Your task to perform on an android device: toggle location history Image 0: 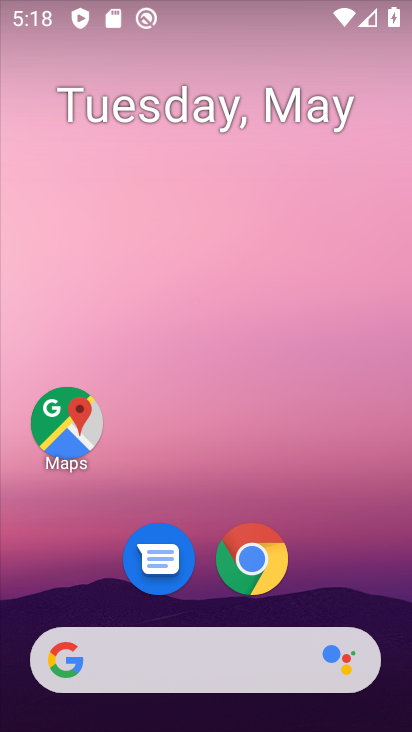
Step 0: drag from (202, 530) to (399, 18)
Your task to perform on an android device: toggle location history Image 1: 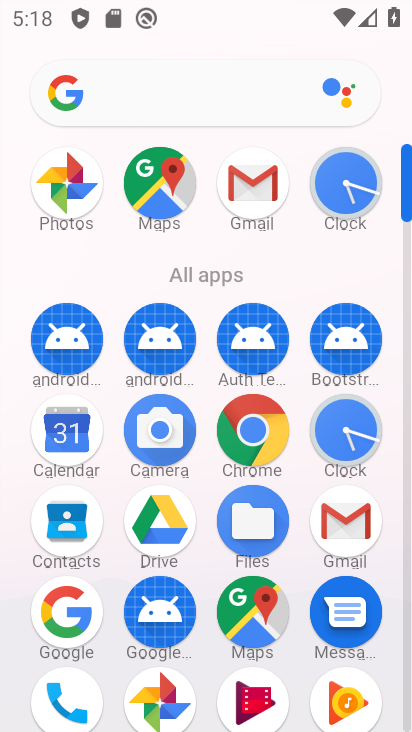
Step 1: drag from (210, 579) to (205, 276)
Your task to perform on an android device: toggle location history Image 2: 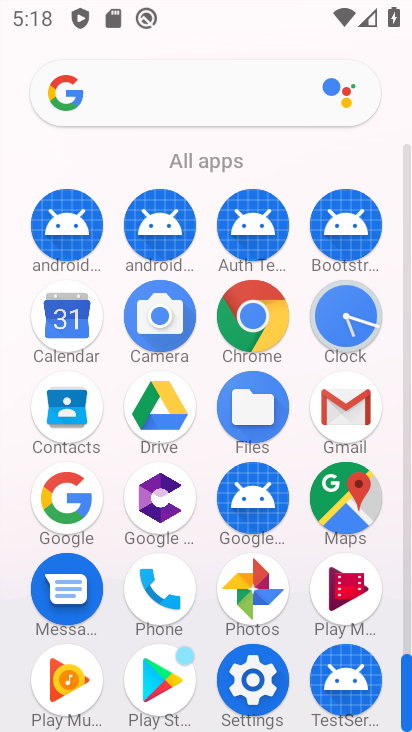
Step 2: click (245, 690)
Your task to perform on an android device: toggle location history Image 3: 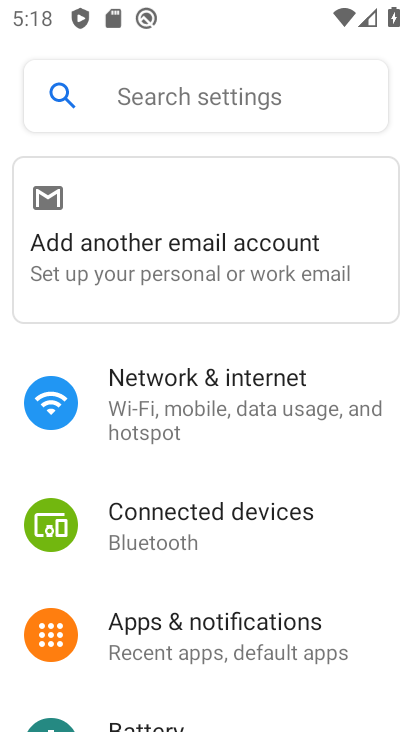
Step 3: drag from (172, 558) to (185, 321)
Your task to perform on an android device: toggle location history Image 4: 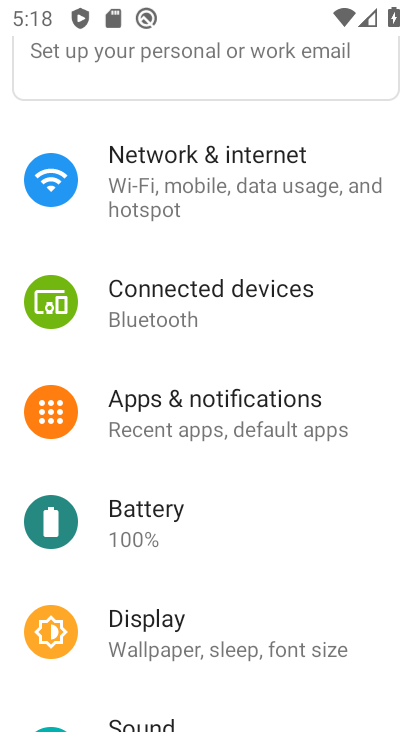
Step 4: drag from (136, 575) to (177, 301)
Your task to perform on an android device: toggle location history Image 5: 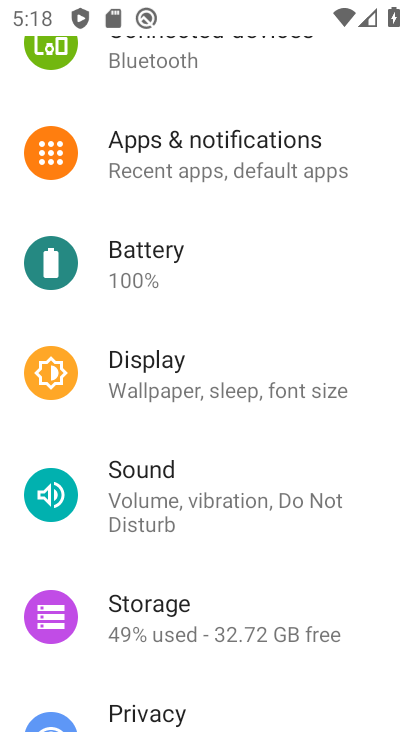
Step 5: drag from (170, 532) to (177, 315)
Your task to perform on an android device: toggle location history Image 6: 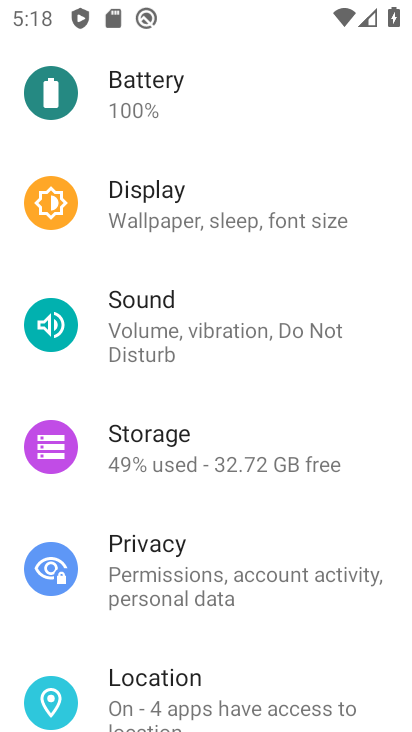
Step 6: drag from (198, 632) to (223, 379)
Your task to perform on an android device: toggle location history Image 7: 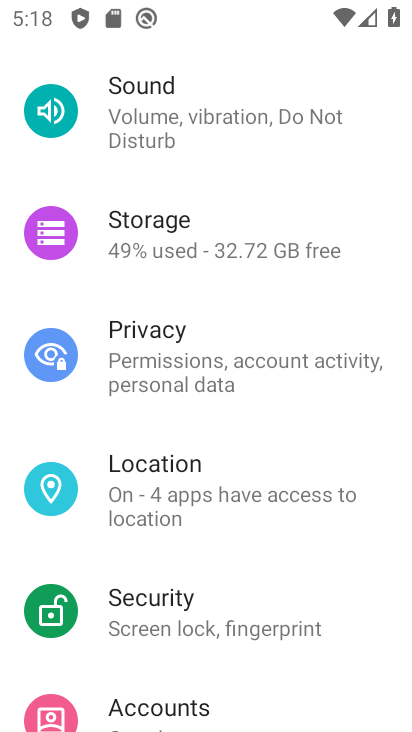
Step 7: drag from (176, 564) to (214, 278)
Your task to perform on an android device: toggle location history Image 8: 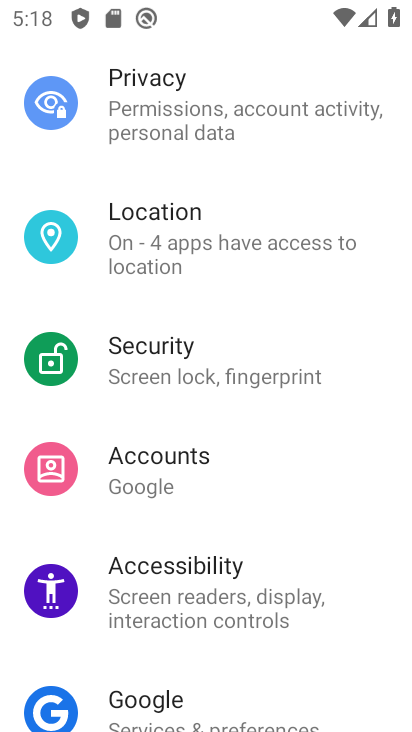
Step 8: click (177, 248)
Your task to perform on an android device: toggle location history Image 9: 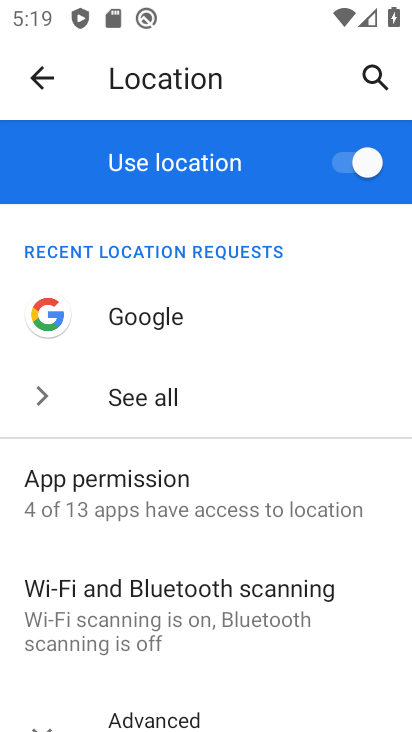
Step 9: drag from (136, 633) to (132, 408)
Your task to perform on an android device: toggle location history Image 10: 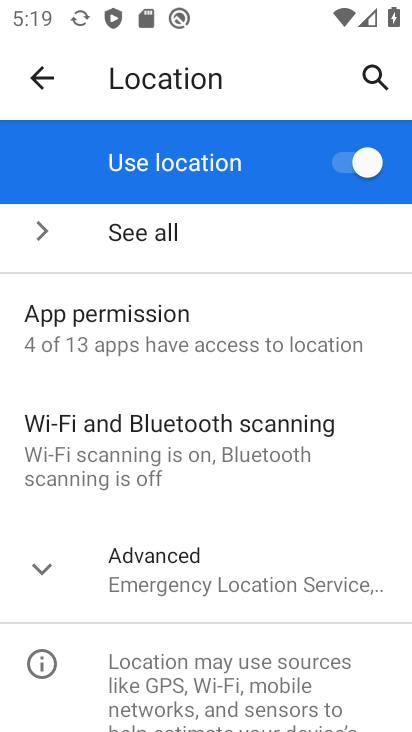
Step 10: click (140, 580)
Your task to perform on an android device: toggle location history Image 11: 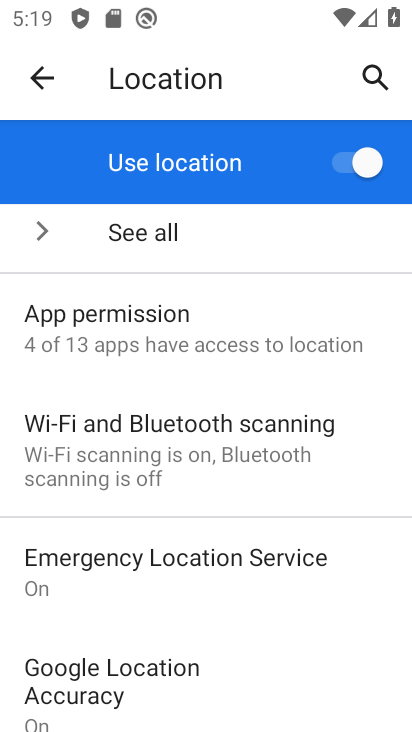
Step 11: drag from (181, 674) to (199, 404)
Your task to perform on an android device: toggle location history Image 12: 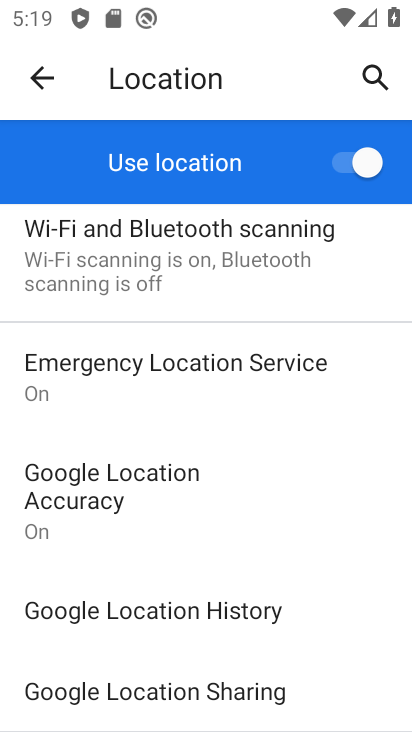
Step 12: drag from (183, 631) to (203, 403)
Your task to perform on an android device: toggle location history Image 13: 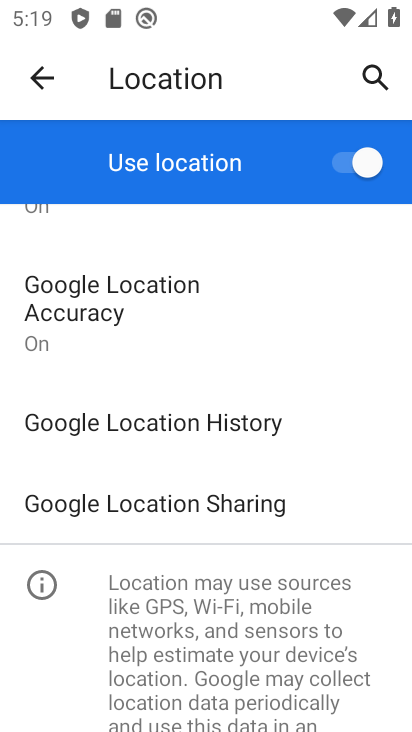
Step 13: click (147, 428)
Your task to perform on an android device: toggle location history Image 14: 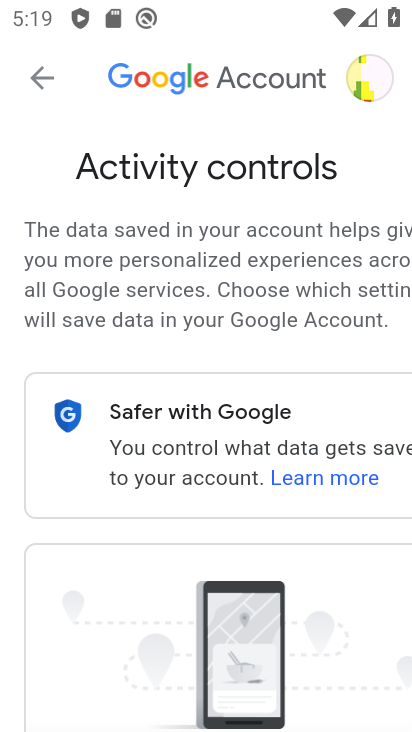
Step 14: drag from (193, 543) to (198, 323)
Your task to perform on an android device: toggle location history Image 15: 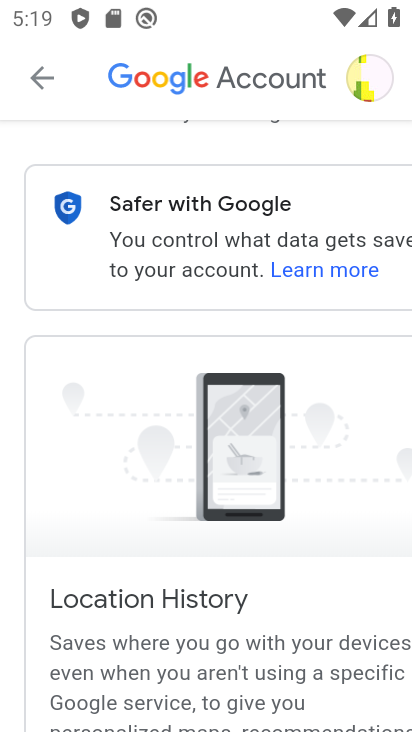
Step 15: drag from (199, 620) to (221, 309)
Your task to perform on an android device: toggle location history Image 16: 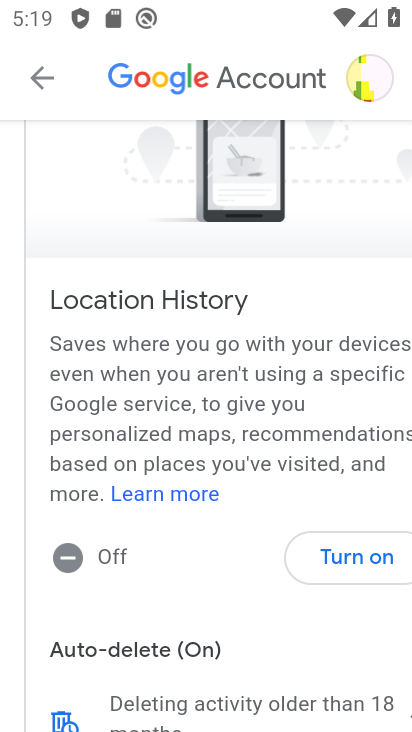
Step 16: click (329, 574)
Your task to perform on an android device: toggle location history Image 17: 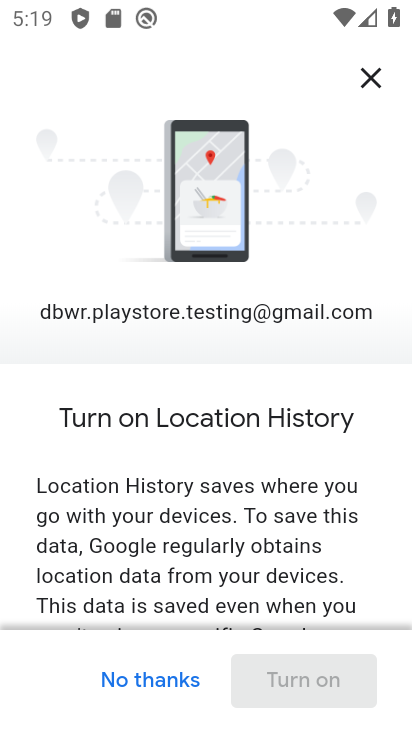
Step 17: drag from (196, 533) to (196, 246)
Your task to perform on an android device: toggle location history Image 18: 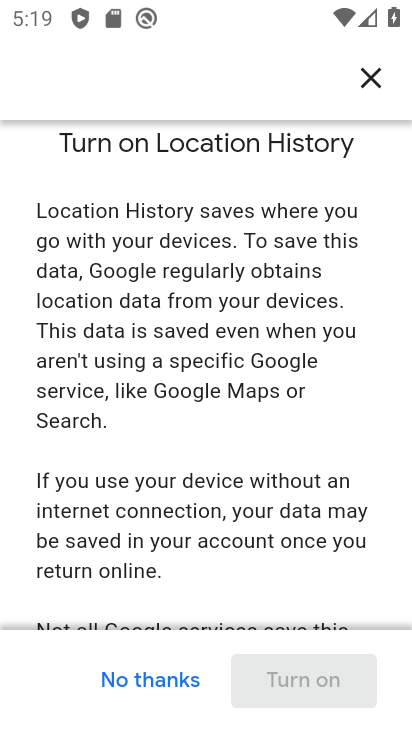
Step 18: drag from (190, 507) to (213, 201)
Your task to perform on an android device: toggle location history Image 19: 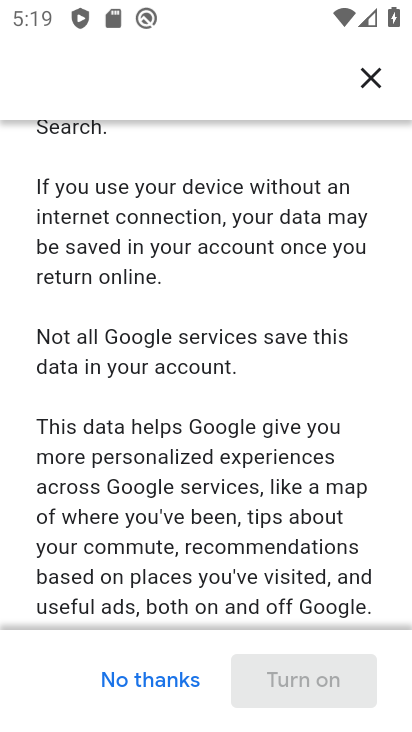
Step 19: drag from (191, 513) to (207, 181)
Your task to perform on an android device: toggle location history Image 20: 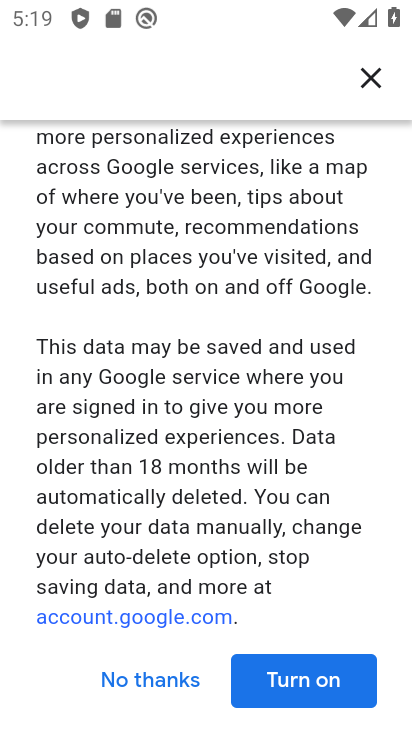
Step 20: click (292, 686)
Your task to perform on an android device: toggle location history Image 21: 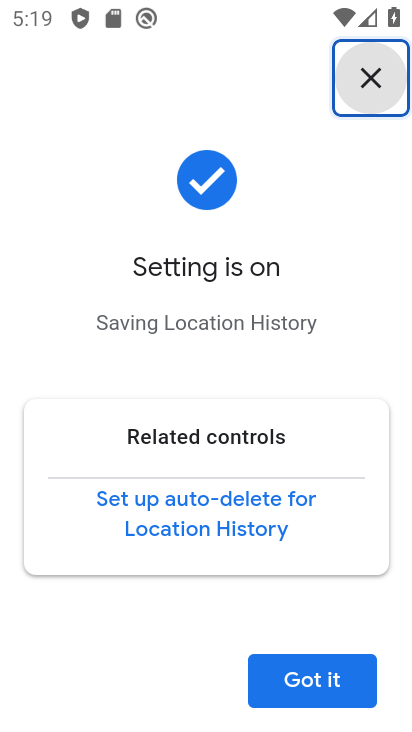
Step 21: click (293, 687)
Your task to perform on an android device: toggle location history Image 22: 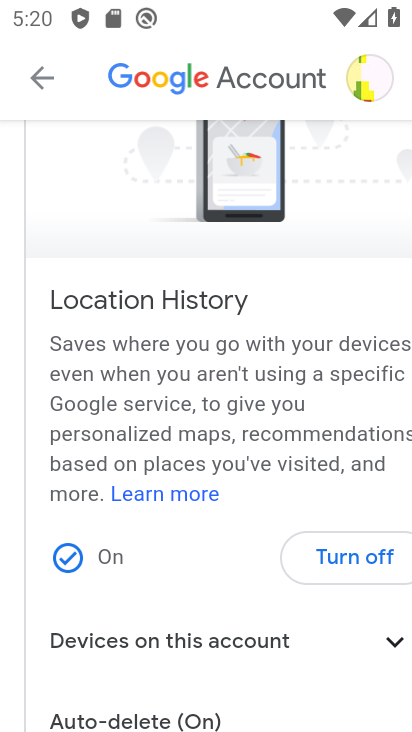
Step 22: task complete